Your task to perform on an android device: Open settings on Google Maps Image 0: 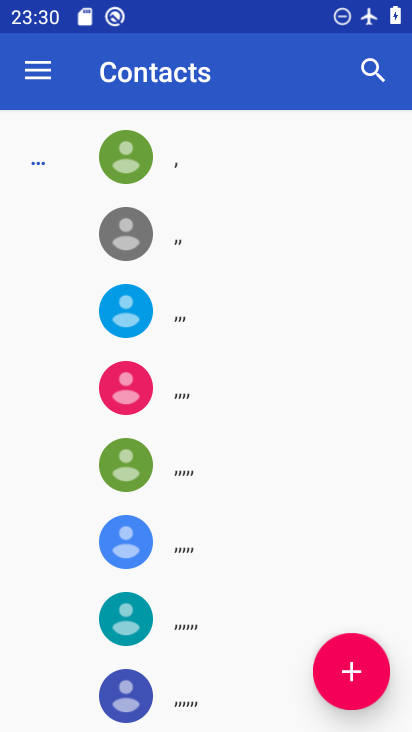
Step 0: press home button
Your task to perform on an android device: Open settings on Google Maps Image 1: 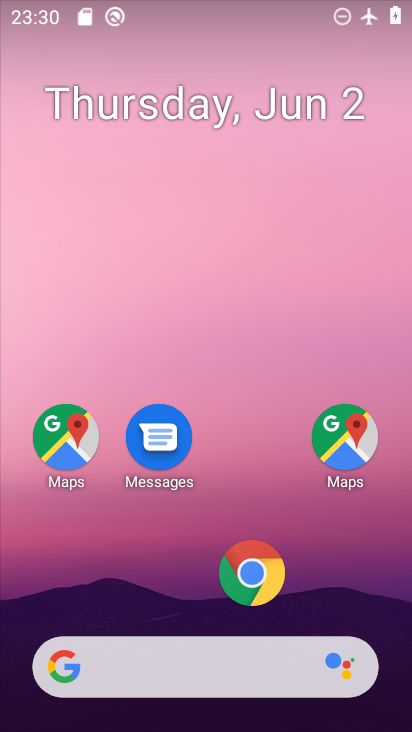
Step 1: click (321, 450)
Your task to perform on an android device: Open settings on Google Maps Image 2: 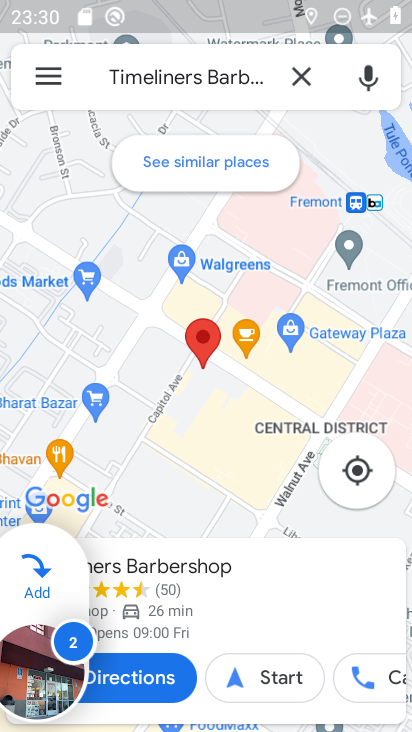
Step 2: click (56, 73)
Your task to perform on an android device: Open settings on Google Maps Image 3: 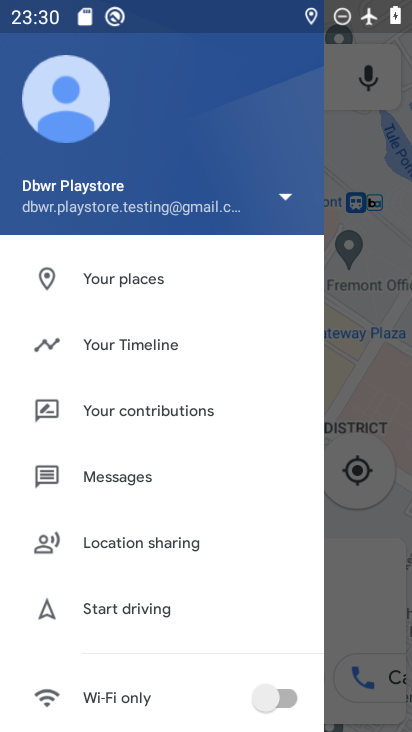
Step 3: drag from (173, 703) to (156, 354)
Your task to perform on an android device: Open settings on Google Maps Image 4: 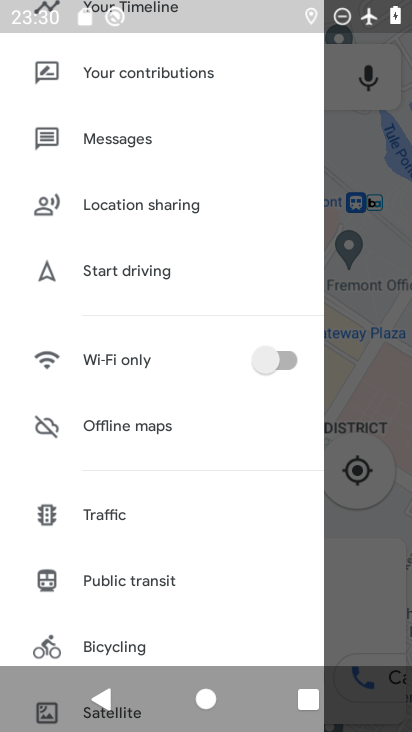
Step 4: drag from (145, 615) to (152, 272)
Your task to perform on an android device: Open settings on Google Maps Image 5: 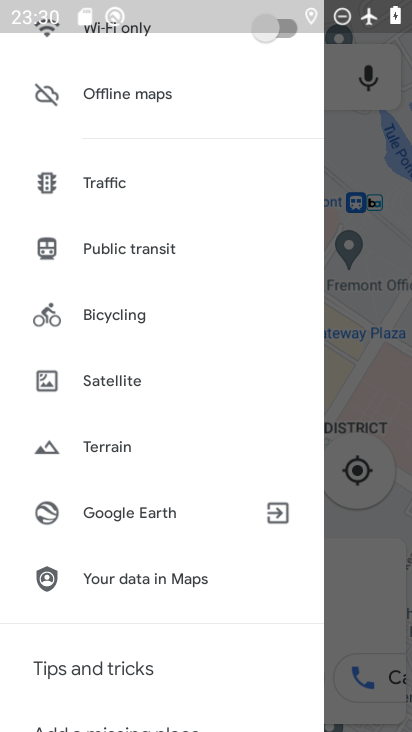
Step 5: drag from (81, 650) to (86, 213)
Your task to perform on an android device: Open settings on Google Maps Image 6: 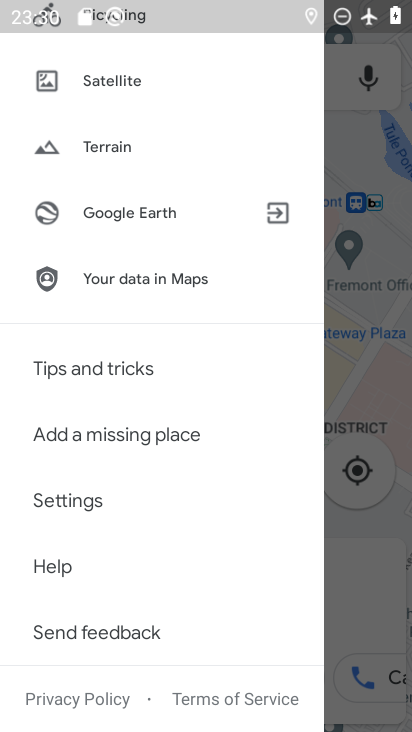
Step 6: click (85, 499)
Your task to perform on an android device: Open settings on Google Maps Image 7: 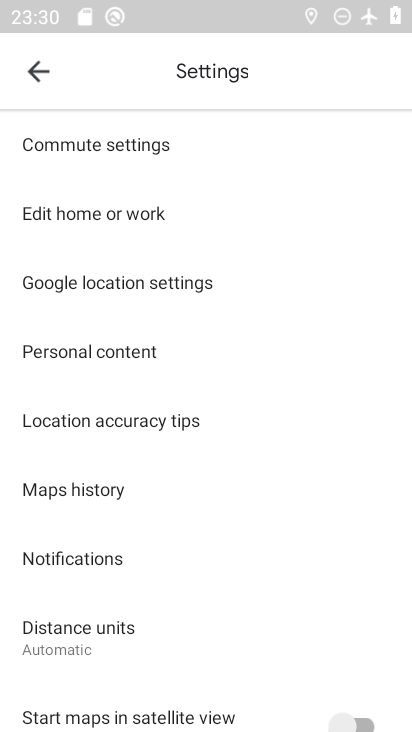
Step 7: task complete